Your task to perform on an android device: Open CNN.com Image 0: 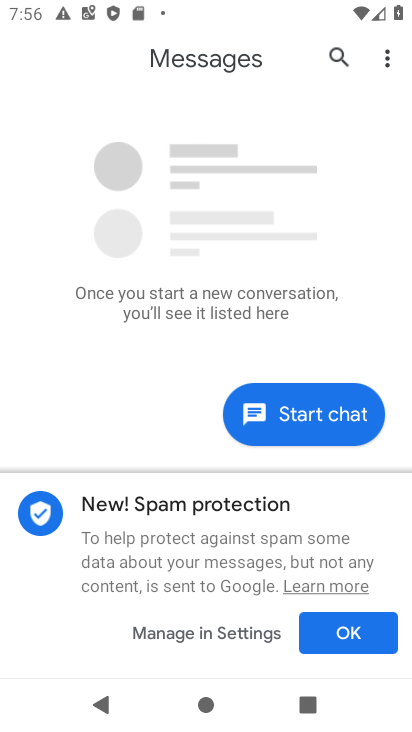
Step 0: press home button
Your task to perform on an android device: Open CNN.com Image 1: 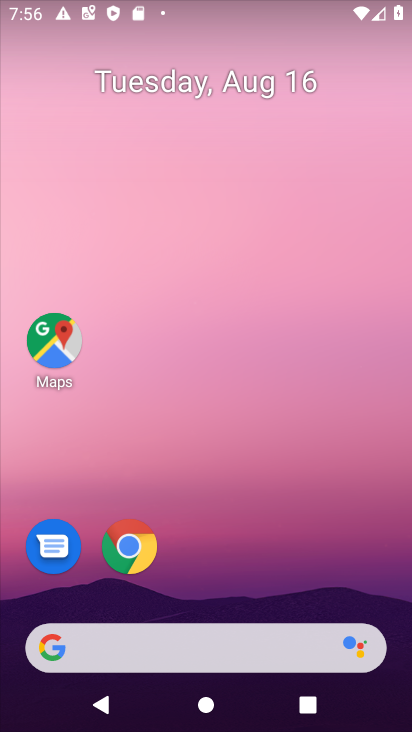
Step 1: click (242, 641)
Your task to perform on an android device: Open CNN.com Image 2: 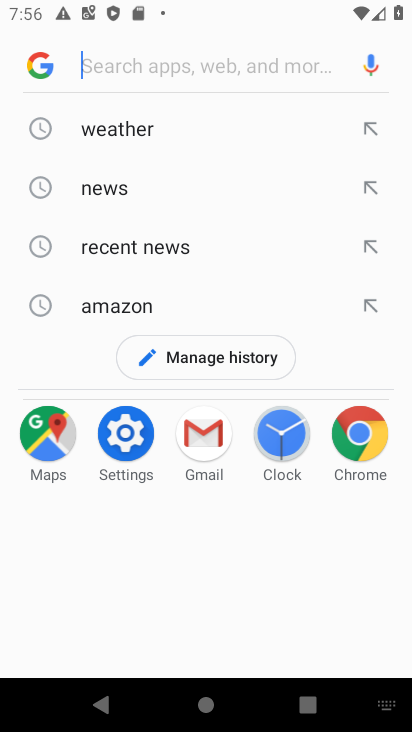
Step 2: type "cnn.com"
Your task to perform on an android device: Open CNN.com Image 3: 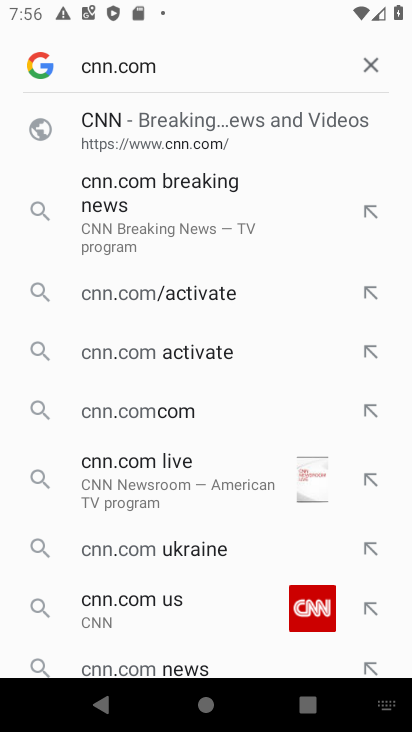
Step 3: click (165, 126)
Your task to perform on an android device: Open CNN.com Image 4: 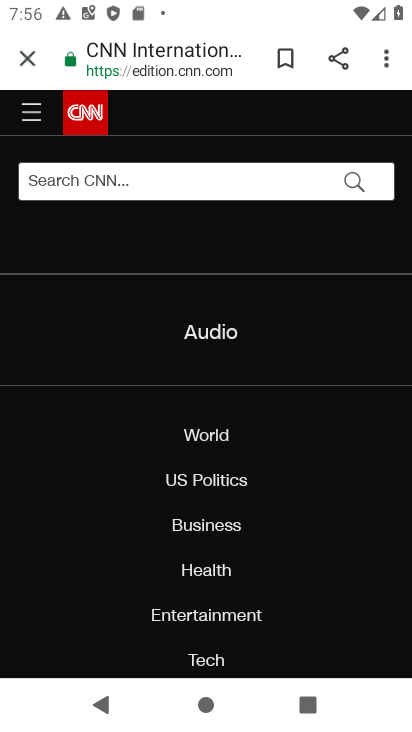
Step 4: task complete